Your task to perform on an android device: set the stopwatch Image 0: 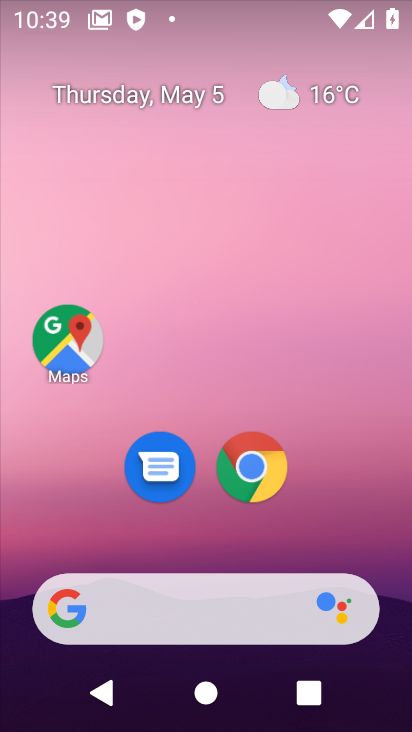
Step 0: drag from (204, 536) to (239, 85)
Your task to perform on an android device: set the stopwatch Image 1: 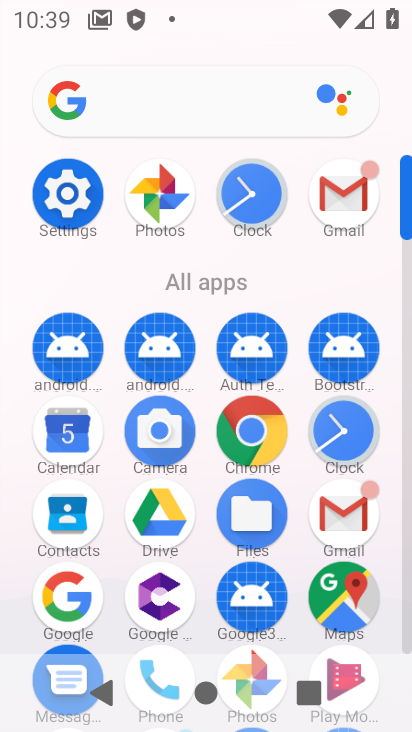
Step 1: click (346, 434)
Your task to perform on an android device: set the stopwatch Image 2: 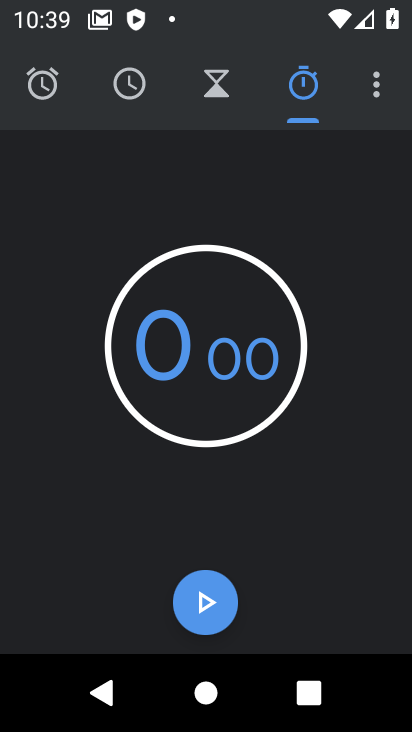
Step 2: click (217, 622)
Your task to perform on an android device: set the stopwatch Image 3: 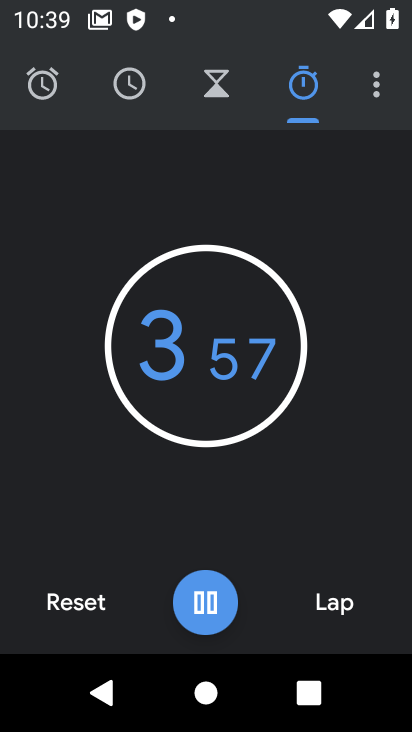
Step 3: task complete